Your task to perform on an android device: Open the Play Movies app and select the watchlist tab. Image 0: 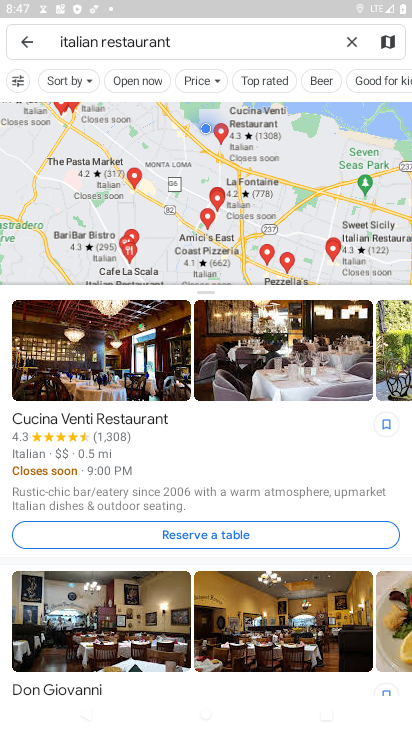
Step 0: press home button
Your task to perform on an android device: Open the Play Movies app and select the watchlist tab. Image 1: 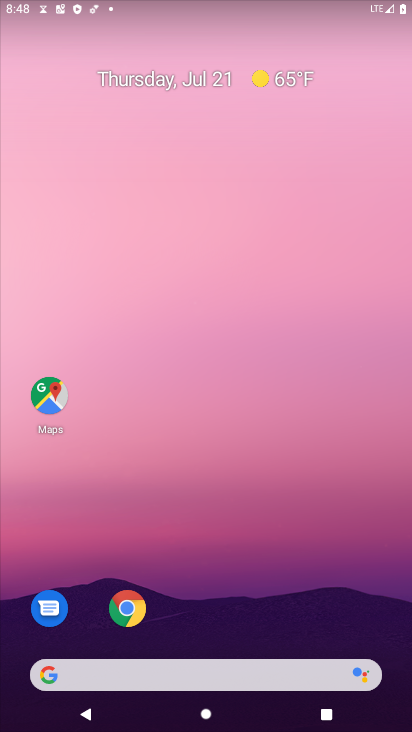
Step 1: drag from (181, 683) to (411, 82)
Your task to perform on an android device: Open the Play Movies app and select the watchlist tab. Image 2: 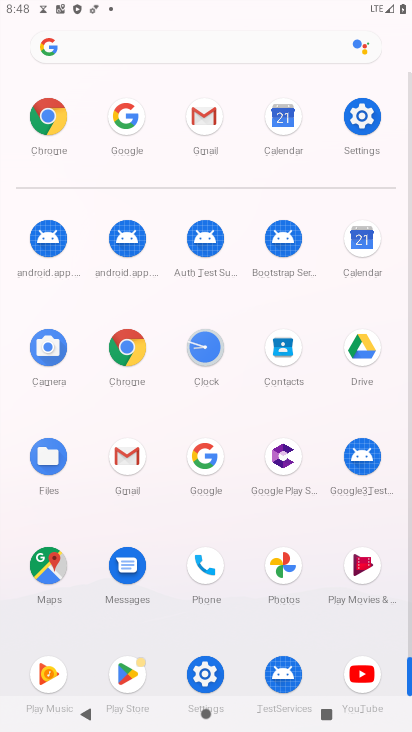
Step 2: click (361, 564)
Your task to perform on an android device: Open the Play Movies app and select the watchlist tab. Image 3: 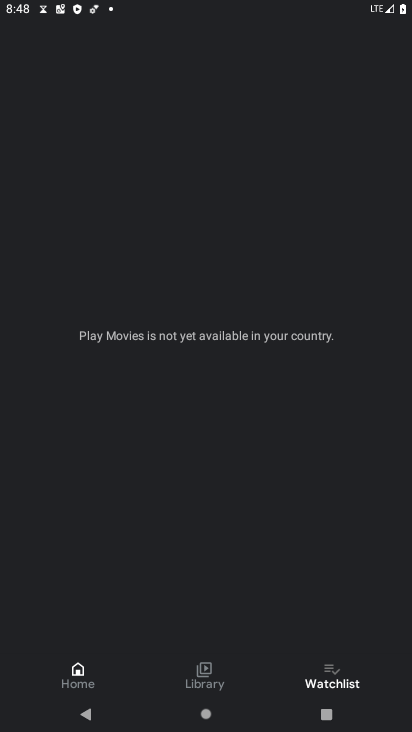
Step 3: click (339, 682)
Your task to perform on an android device: Open the Play Movies app and select the watchlist tab. Image 4: 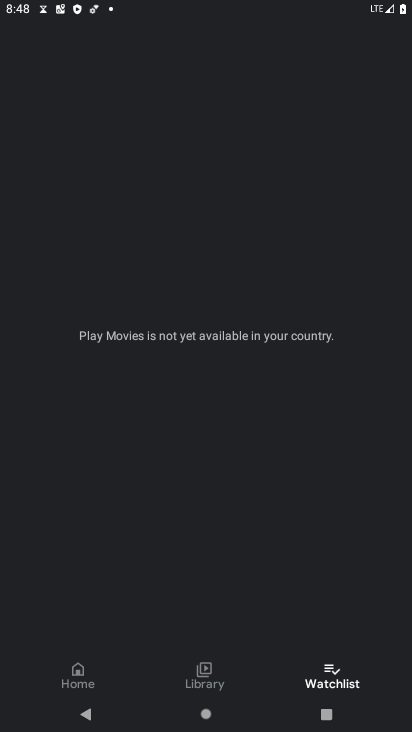
Step 4: task complete